Your task to perform on an android device: Go to Wikipedia Image 0: 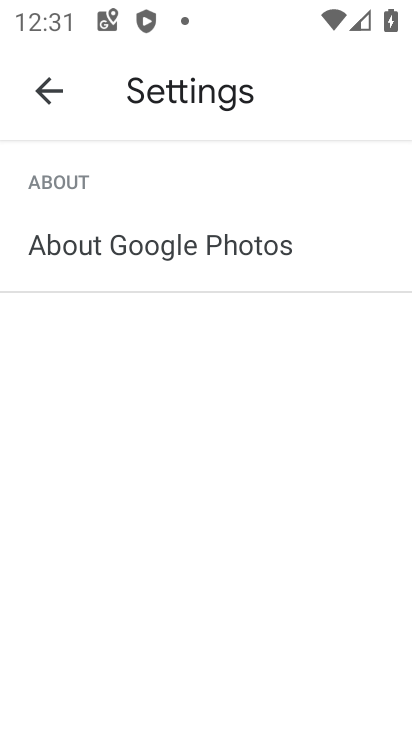
Step 0: press back button
Your task to perform on an android device: Go to Wikipedia Image 1: 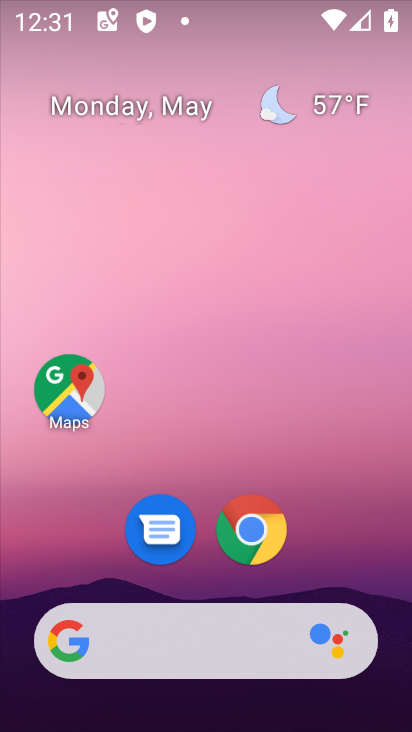
Step 1: click (249, 535)
Your task to perform on an android device: Go to Wikipedia Image 2: 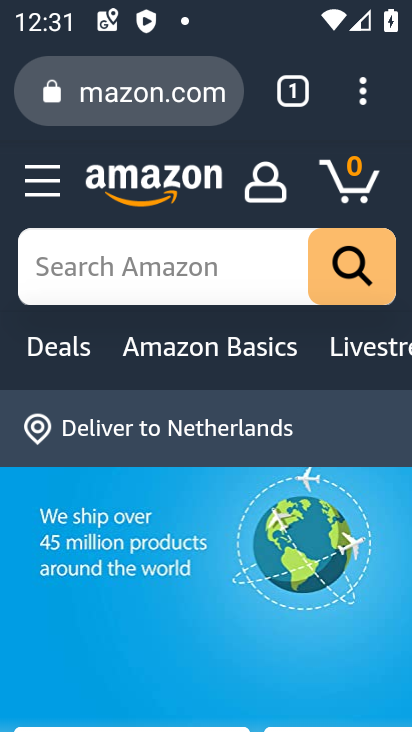
Step 2: click (189, 104)
Your task to perform on an android device: Go to Wikipedia Image 3: 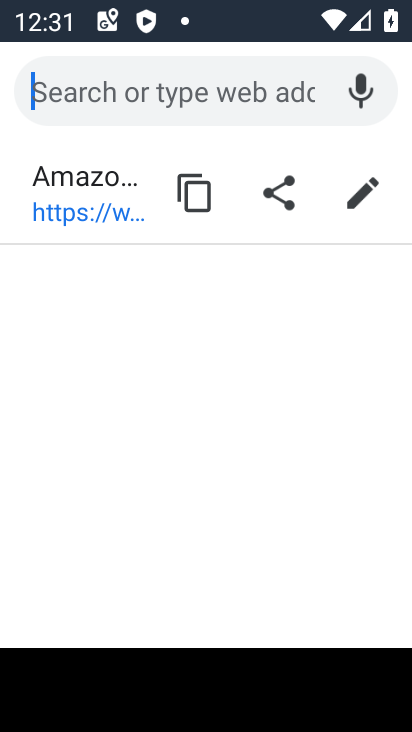
Step 3: type "Wikipedia"
Your task to perform on an android device: Go to Wikipedia Image 4: 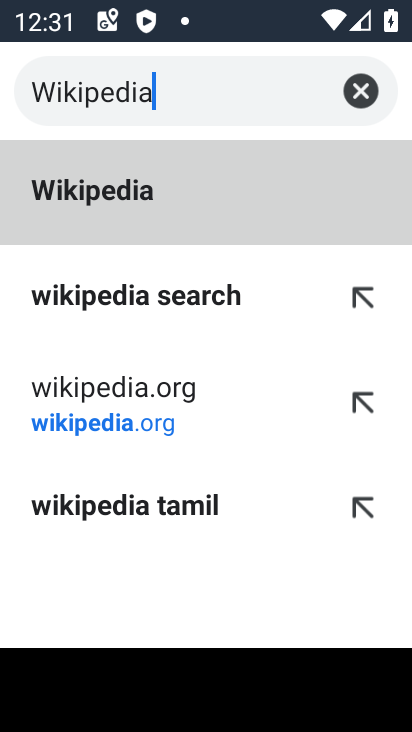
Step 4: click (95, 208)
Your task to perform on an android device: Go to Wikipedia Image 5: 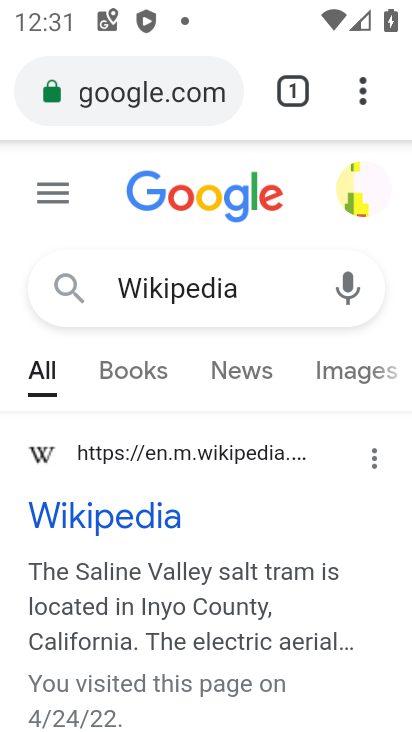
Step 5: click (82, 512)
Your task to perform on an android device: Go to Wikipedia Image 6: 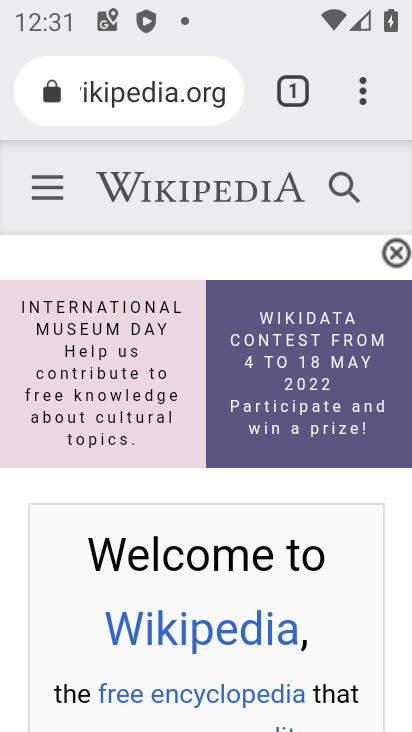
Step 6: task complete